Your task to perform on an android device: find snoozed emails in the gmail app Image 0: 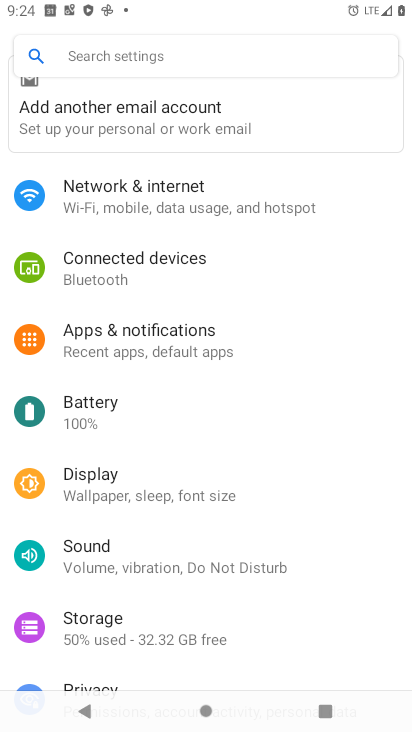
Step 0: press home button
Your task to perform on an android device: find snoozed emails in the gmail app Image 1: 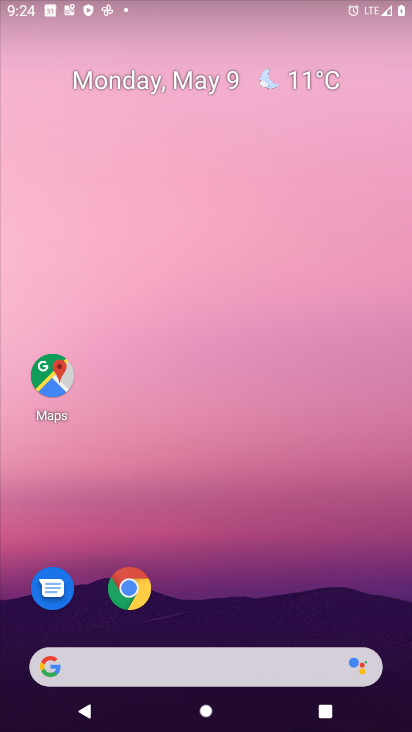
Step 1: drag from (343, 625) to (236, 93)
Your task to perform on an android device: find snoozed emails in the gmail app Image 2: 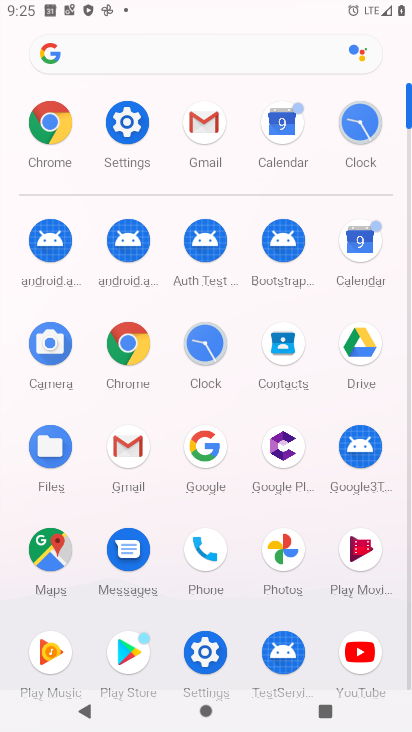
Step 2: click (138, 467)
Your task to perform on an android device: find snoozed emails in the gmail app Image 3: 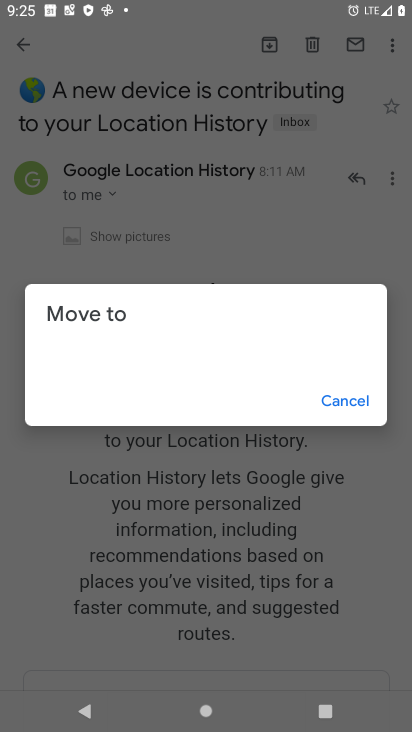
Step 3: click (330, 406)
Your task to perform on an android device: find snoozed emails in the gmail app Image 4: 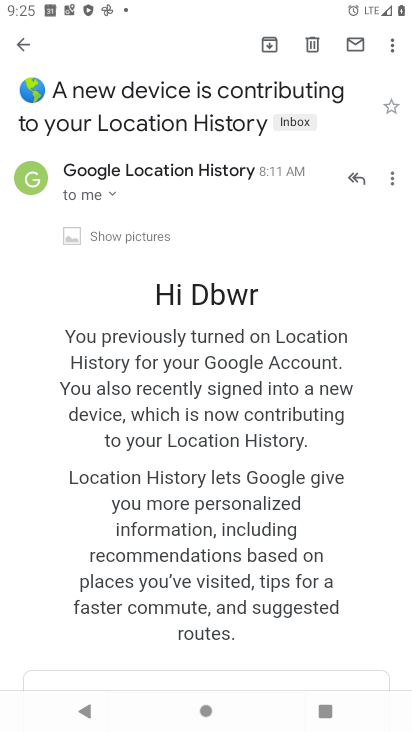
Step 4: press back button
Your task to perform on an android device: find snoozed emails in the gmail app Image 5: 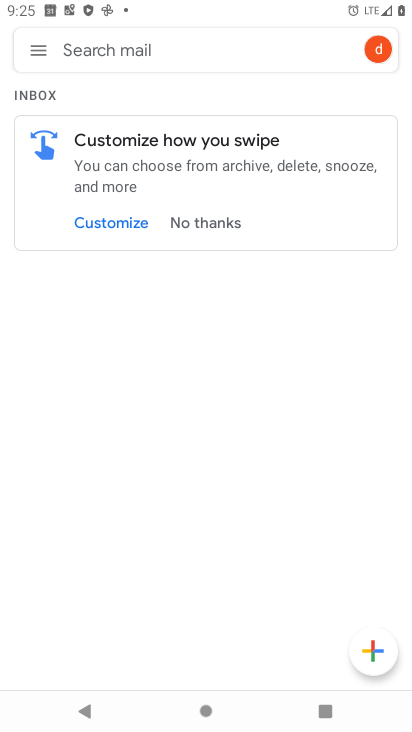
Step 5: click (25, 37)
Your task to perform on an android device: find snoozed emails in the gmail app Image 6: 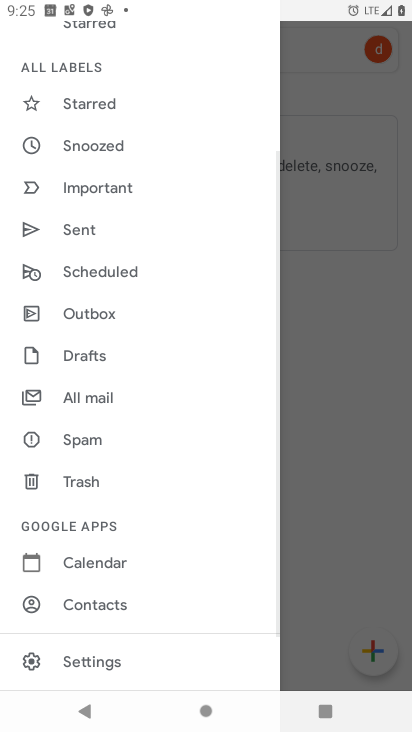
Step 6: click (75, 141)
Your task to perform on an android device: find snoozed emails in the gmail app Image 7: 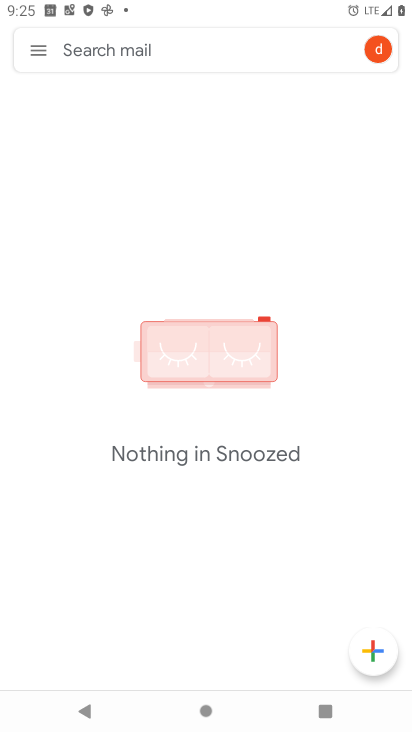
Step 7: task complete